Your task to perform on an android device: What's the weather? Image 0: 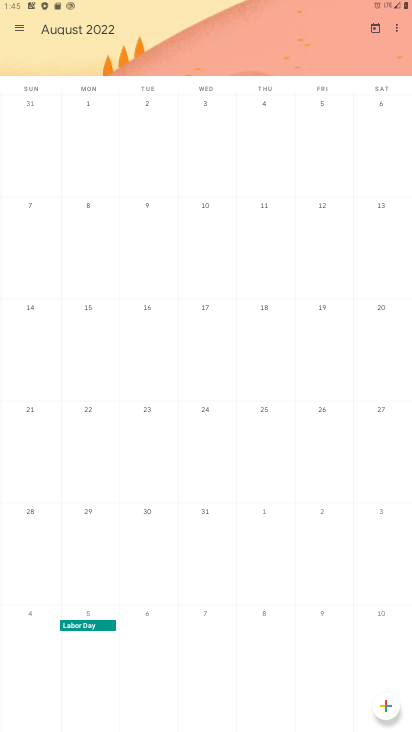
Step 0: press home button
Your task to perform on an android device: What's the weather? Image 1: 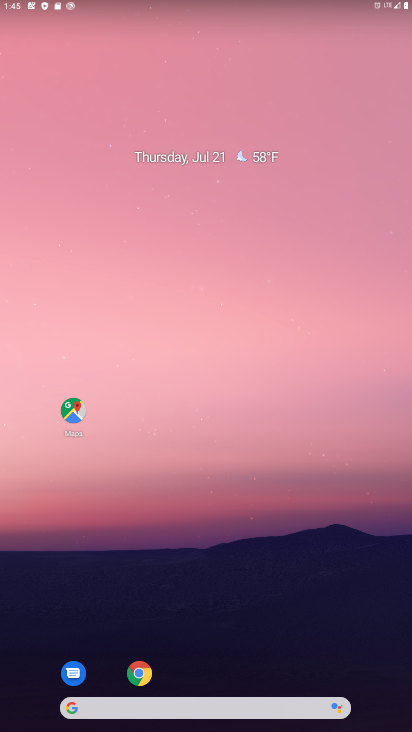
Step 1: click (149, 669)
Your task to perform on an android device: What's the weather? Image 2: 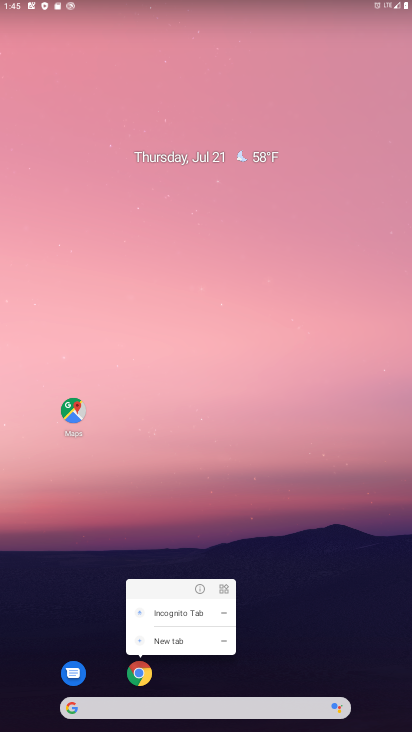
Step 2: click (140, 672)
Your task to perform on an android device: What's the weather? Image 3: 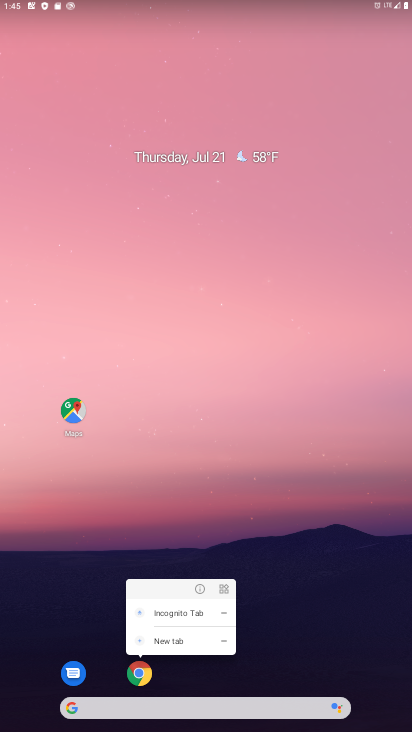
Step 3: click (140, 672)
Your task to perform on an android device: What's the weather? Image 4: 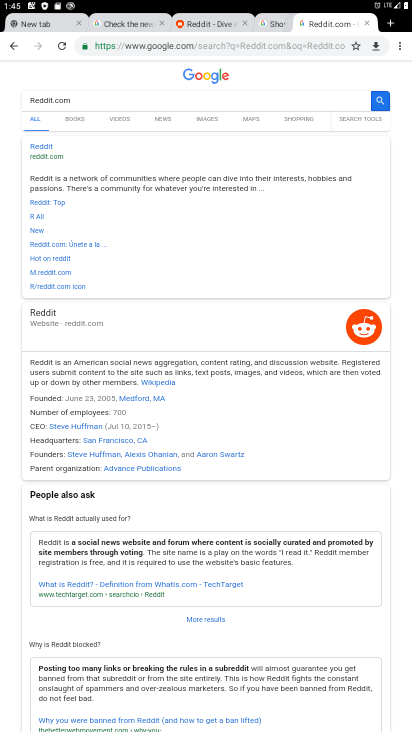
Step 4: click (393, 20)
Your task to perform on an android device: What's the weather? Image 5: 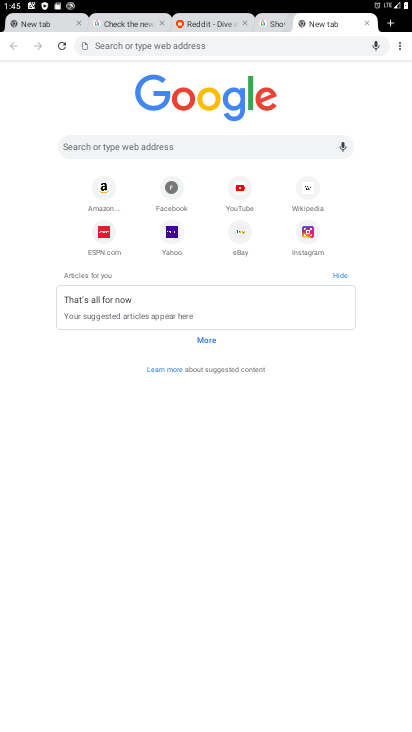
Step 5: drag from (265, 402) to (325, 407)
Your task to perform on an android device: What's the weather? Image 6: 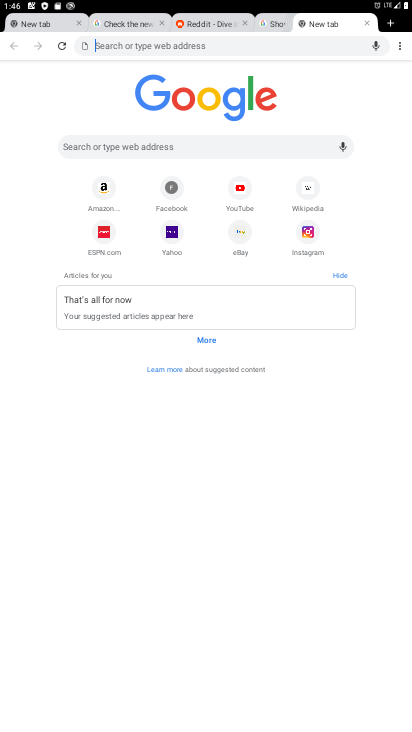
Step 6: click (136, 140)
Your task to perform on an android device: What's the weather? Image 7: 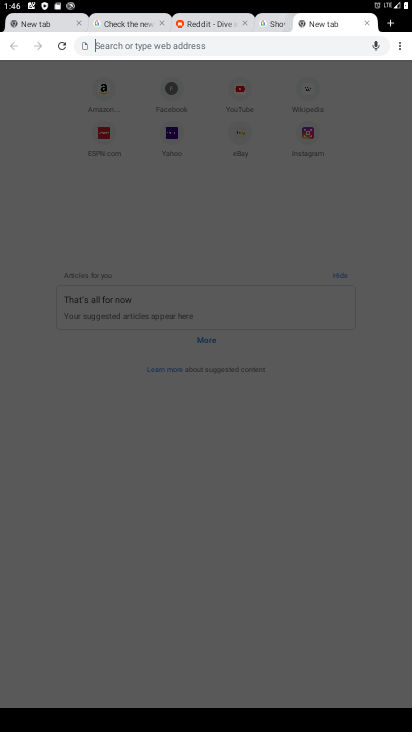
Step 7: type "What's the weather "
Your task to perform on an android device: What's the weather? Image 8: 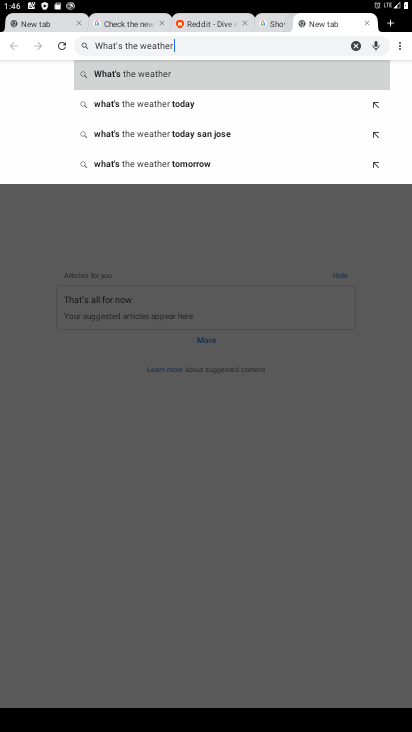
Step 8: click (181, 70)
Your task to perform on an android device: What's the weather? Image 9: 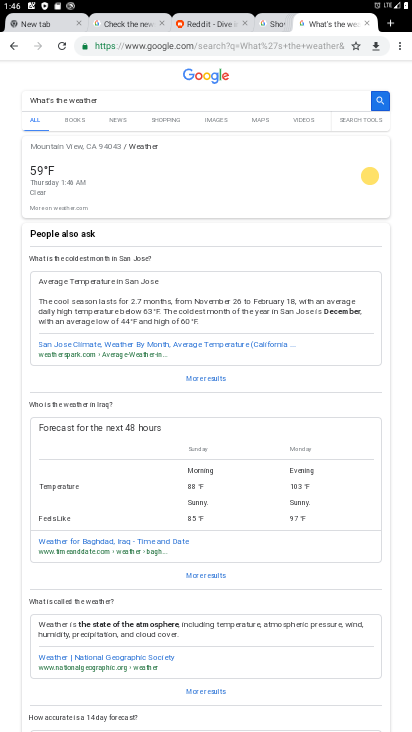
Step 9: task complete